Your task to perform on an android device: Toggle the flashlight Image 0: 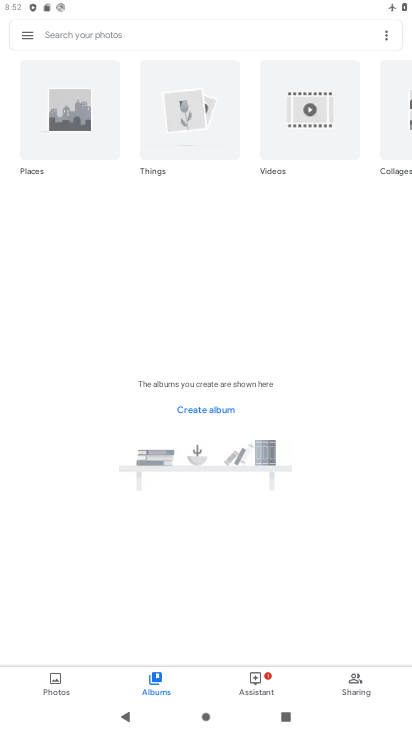
Step 0: press home button
Your task to perform on an android device: Toggle the flashlight Image 1: 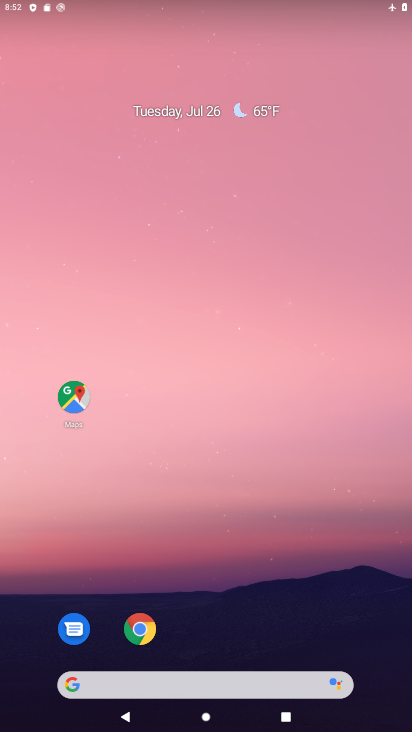
Step 1: drag from (306, 615) to (243, 0)
Your task to perform on an android device: Toggle the flashlight Image 2: 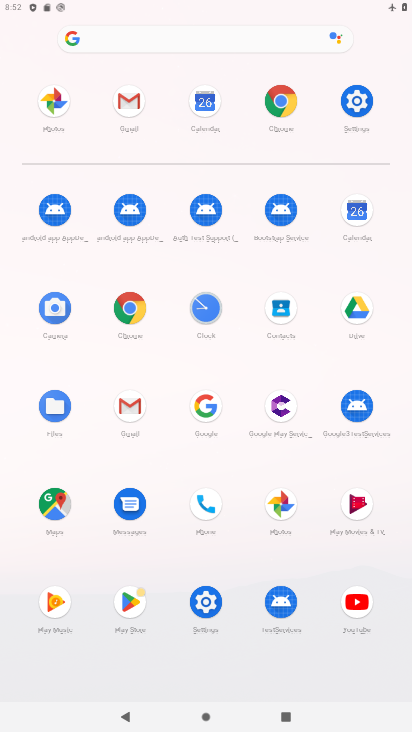
Step 2: click (351, 104)
Your task to perform on an android device: Toggle the flashlight Image 3: 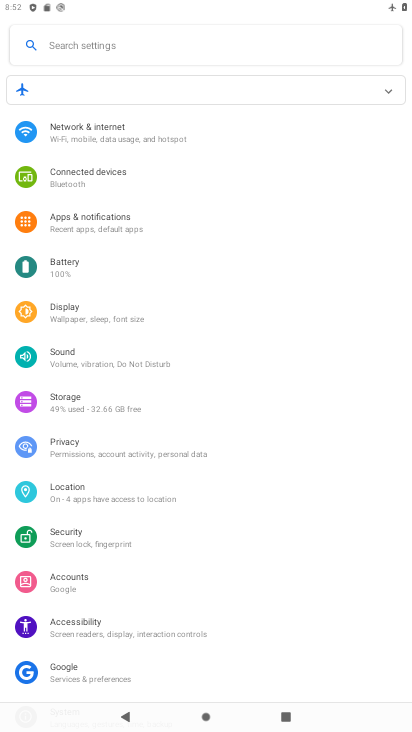
Step 3: click (66, 315)
Your task to perform on an android device: Toggle the flashlight Image 4: 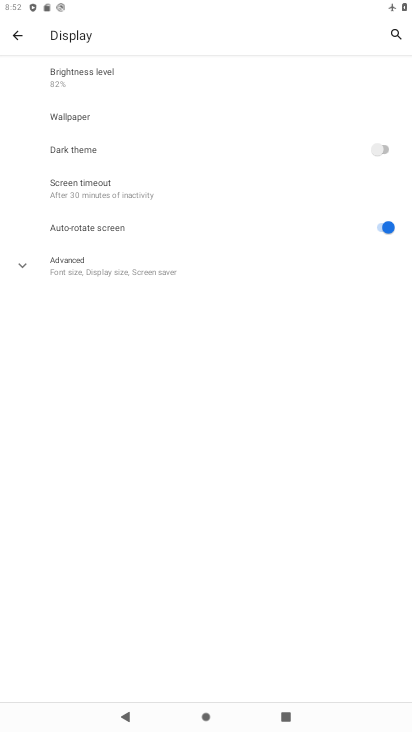
Step 4: task complete